Your task to perform on an android device: change timer sound Image 0: 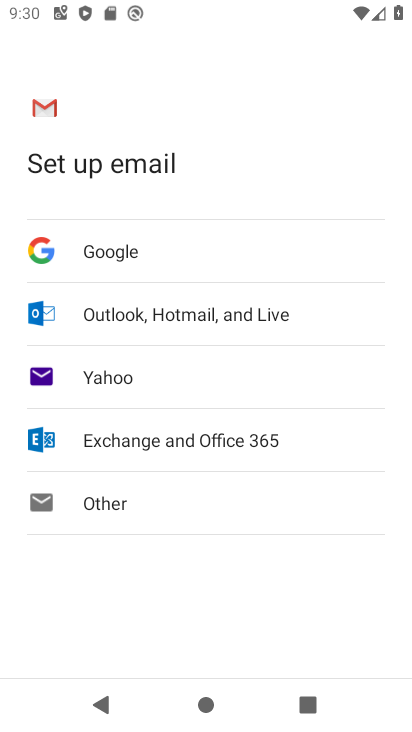
Step 0: press home button
Your task to perform on an android device: change timer sound Image 1: 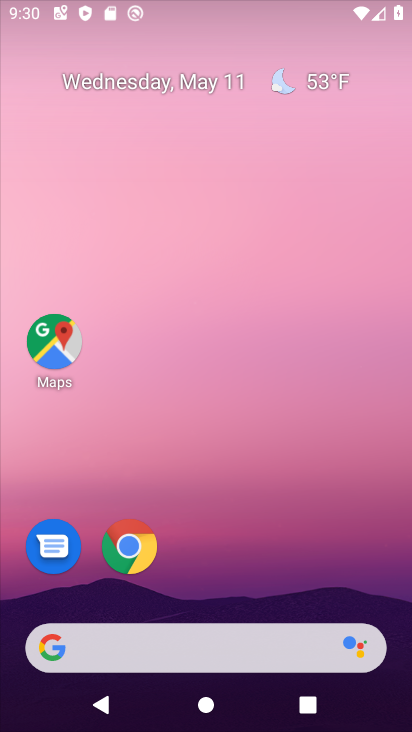
Step 1: drag from (393, 617) to (290, 56)
Your task to perform on an android device: change timer sound Image 2: 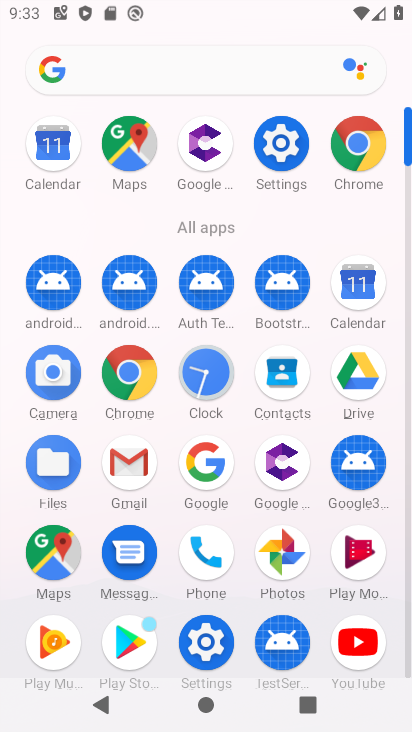
Step 2: click (209, 373)
Your task to perform on an android device: change timer sound Image 3: 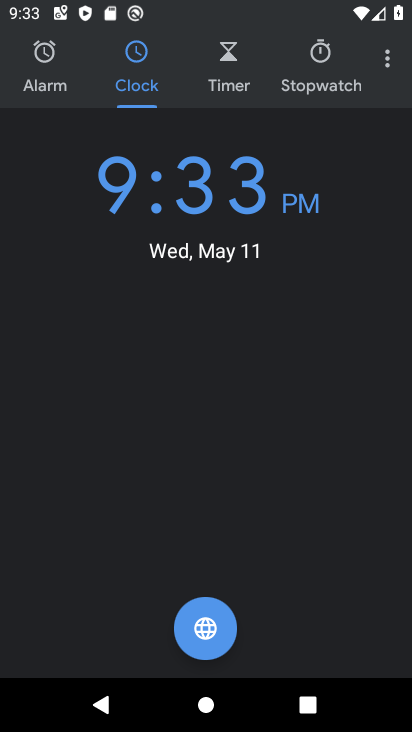
Step 3: click (380, 65)
Your task to perform on an android device: change timer sound Image 4: 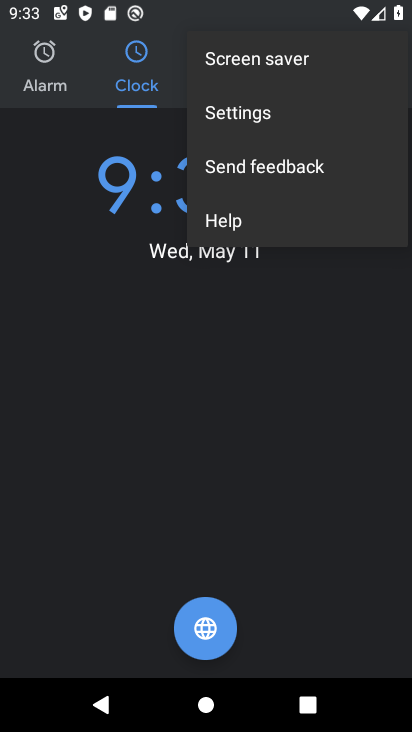
Step 4: click (256, 119)
Your task to perform on an android device: change timer sound Image 5: 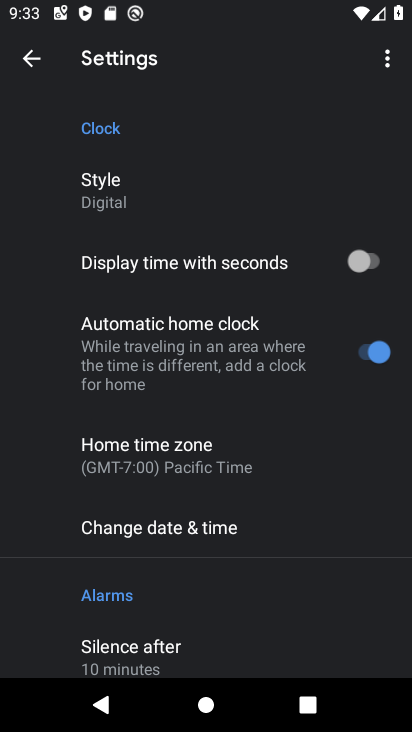
Step 5: drag from (230, 495) to (194, 161)
Your task to perform on an android device: change timer sound Image 6: 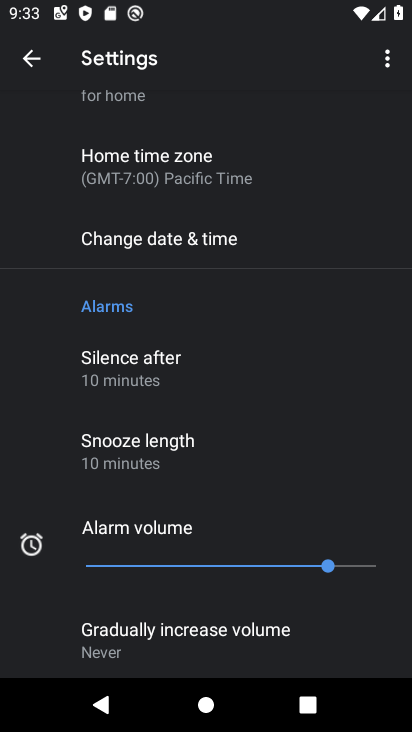
Step 6: drag from (215, 487) to (227, 166)
Your task to perform on an android device: change timer sound Image 7: 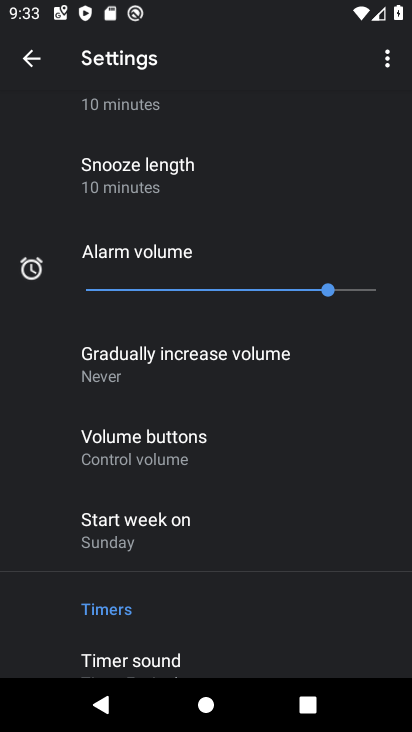
Step 7: click (171, 655)
Your task to perform on an android device: change timer sound Image 8: 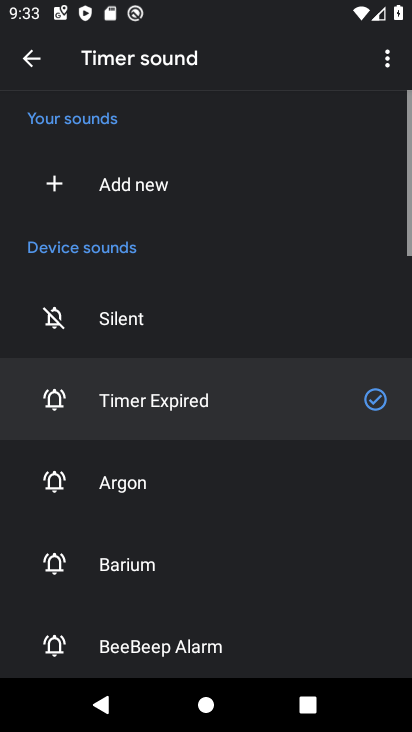
Step 8: click (168, 572)
Your task to perform on an android device: change timer sound Image 9: 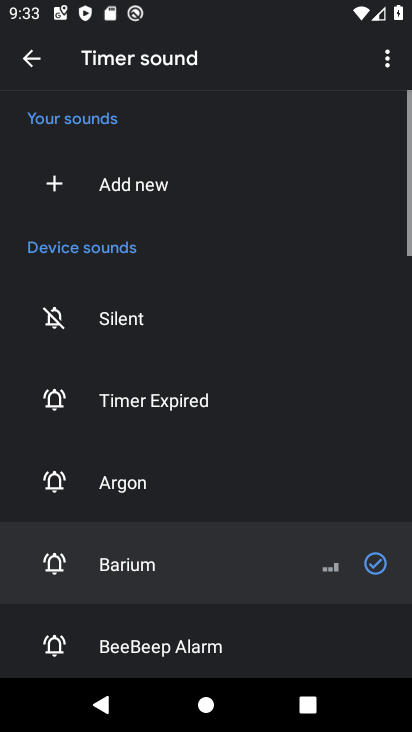
Step 9: task complete